Your task to perform on an android device: toggle show notifications on the lock screen Image 0: 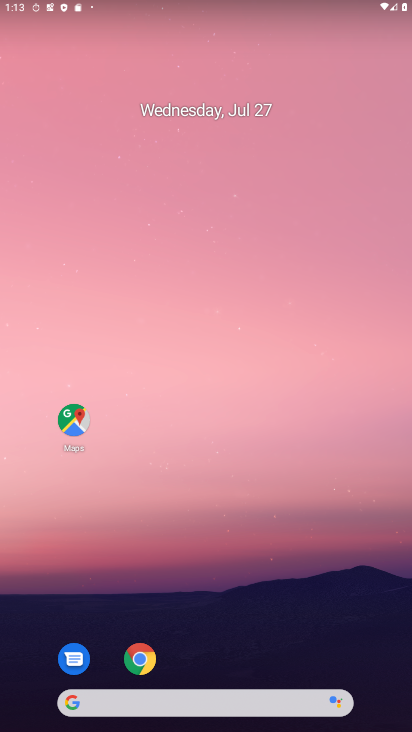
Step 0: press home button
Your task to perform on an android device: toggle show notifications on the lock screen Image 1: 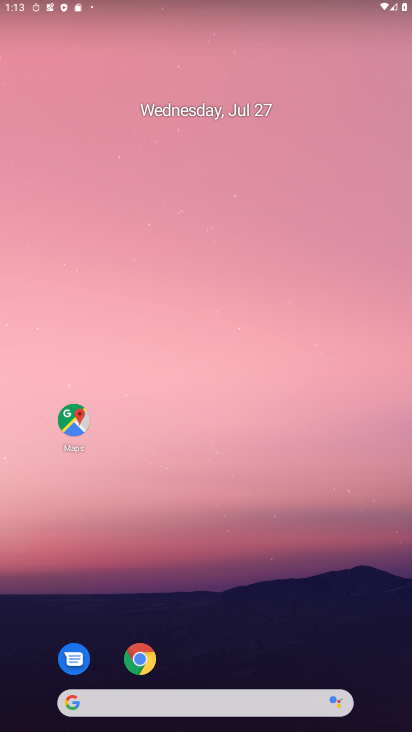
Step 1: drag from (332, 619) to (149, 15)
Your task to perform on an android device: toggle show notifications on the lock screen Image 2: 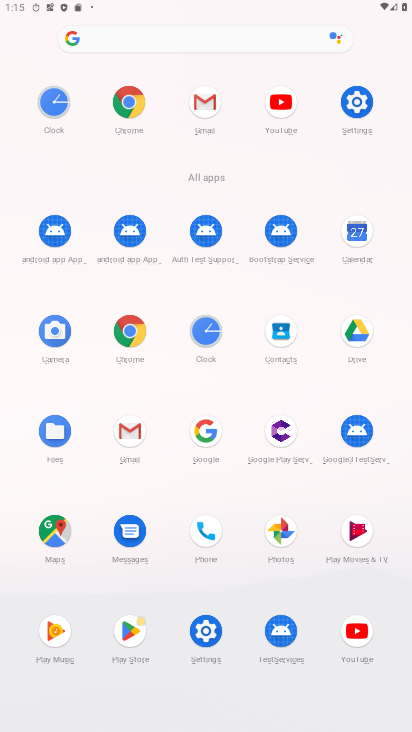
Step 2: click (209, 643)
Your task to perform on an android device: toggle show notifications on the lock screen Image 3: 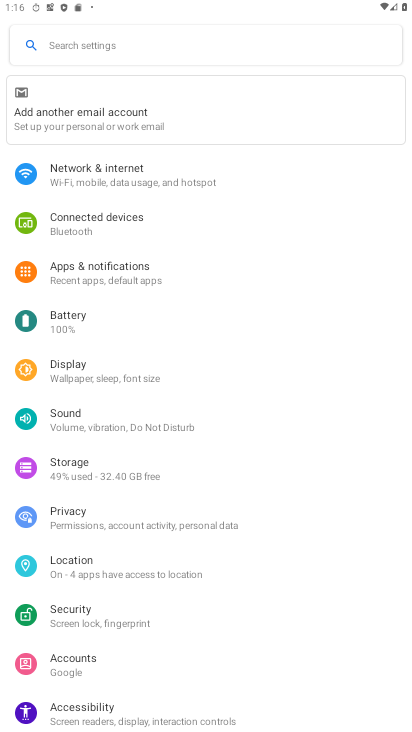
Step 3: click (170, 275)
Your task to perform on an android device: toggle show notifications on the lock screen Image 4: 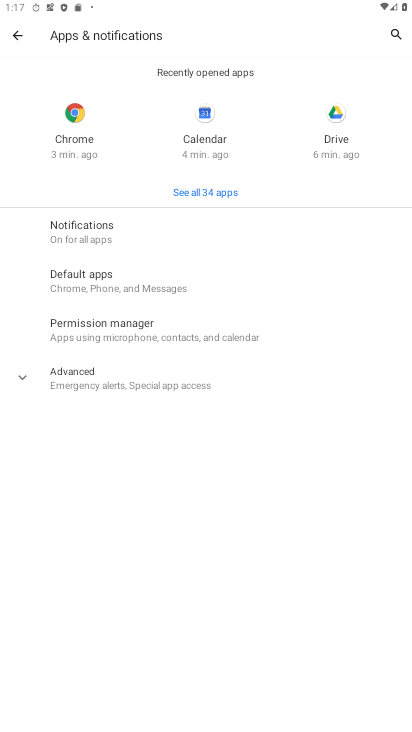
Step 4: click (93, 219)
Your task to perform on an android device: toggle show notifications on the lock screen Image 5: 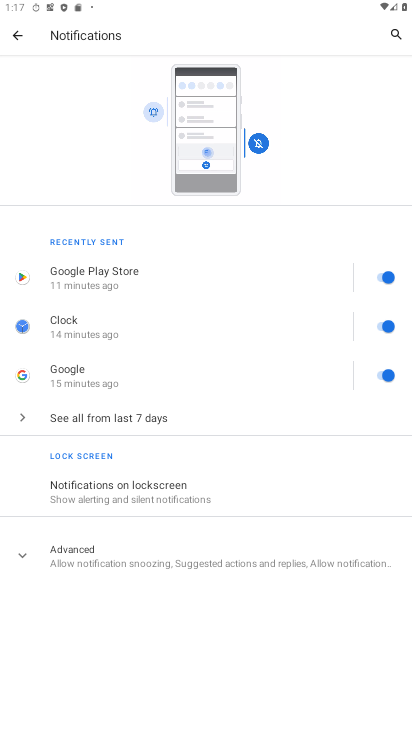
Step 5: click (156, 483)
Your task to perform on an android device: toggle show notifications on the lock screen Image 6: 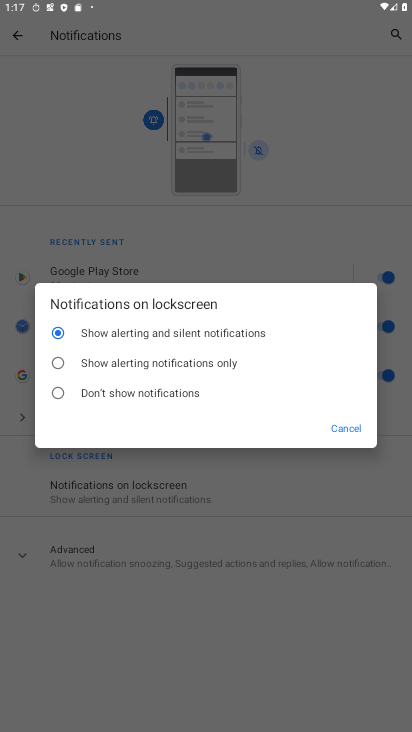
Step 6: click (214, 335)
Your task to perform on an android device: toggle show notifications on the lock screen Image 7: 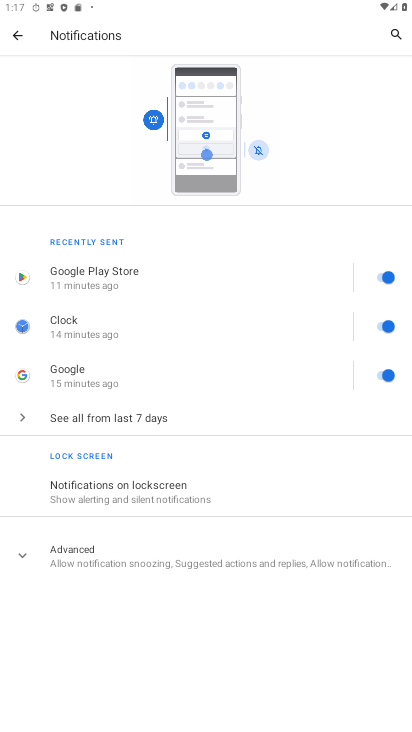
Step 7: task complete